Your task to perform on an android device: set the timer Image 0: 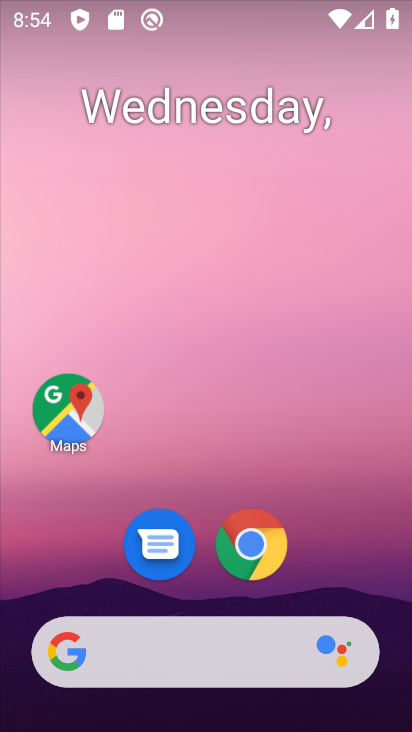
Step 0: drag from (167, 640) to (306, 113)
Your task to perform on an android device: set the timer Image 1: 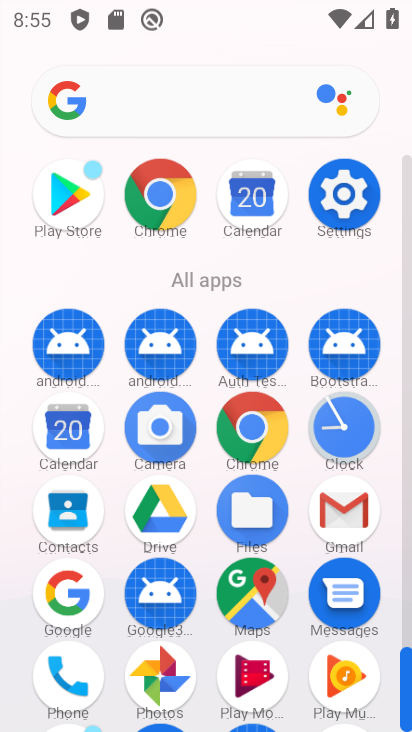
Step 1: click (344, 431)
Your task to perform on an android device: set the timer Image 2: 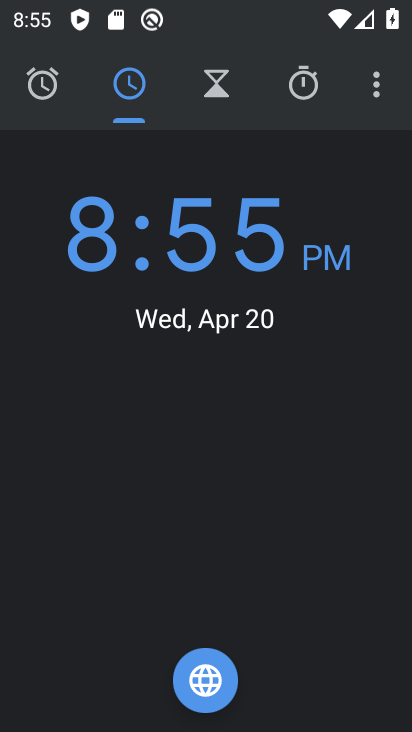
Step 2: click (227, 90)
Your task to perform on an android device: set the timer Image 3: 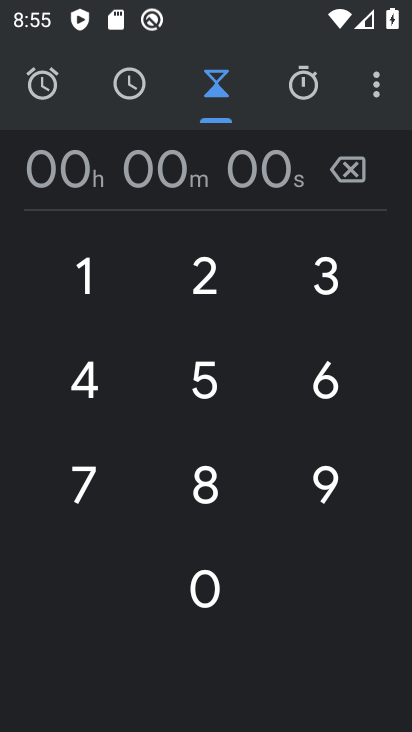
Step 3: click (95, 293)
Your task to perform on an android device: set the timer Image 4: 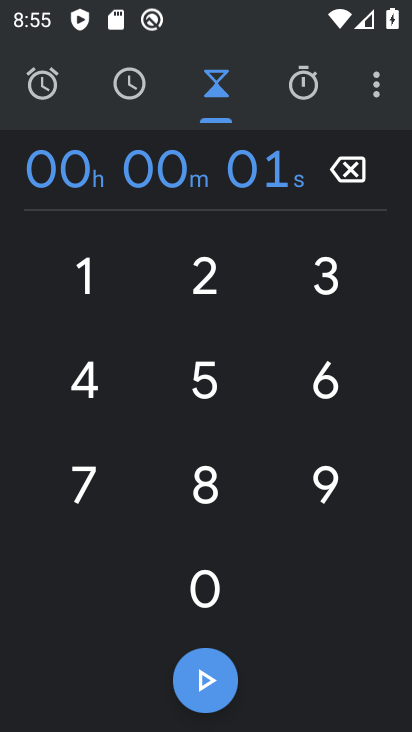
Step 4: click (208, 298)
Your task to perform on an android device: set the timer Image 5: 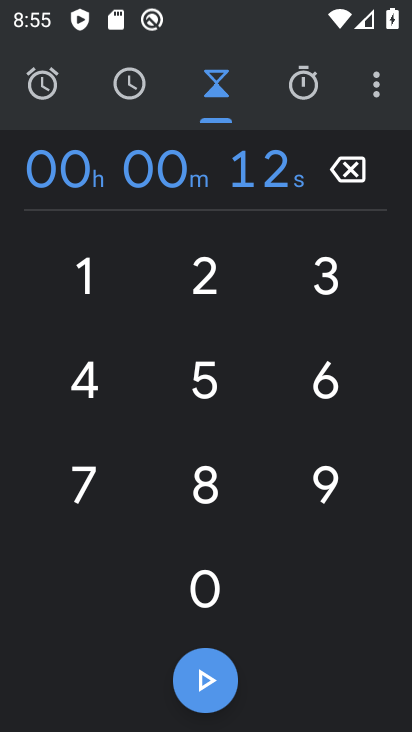
Step 5: click (206, 685)
Your task to perform on an android device: set the timer Image 6: 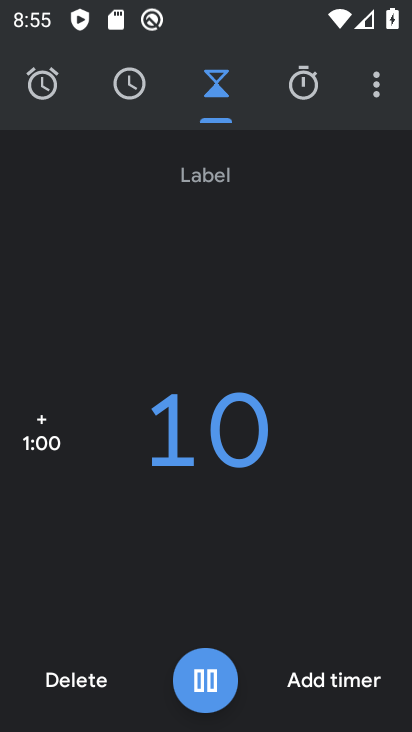
Step 6: click (203, 685)
Your task to perform on an android device: set the timer Image 7: 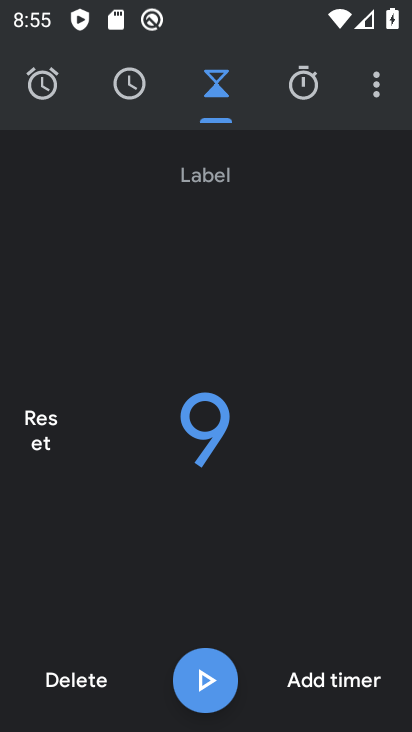
Step 7: task complete